Your task to perform on an android device: Search for Mexican restaurants on Maps Image 0: 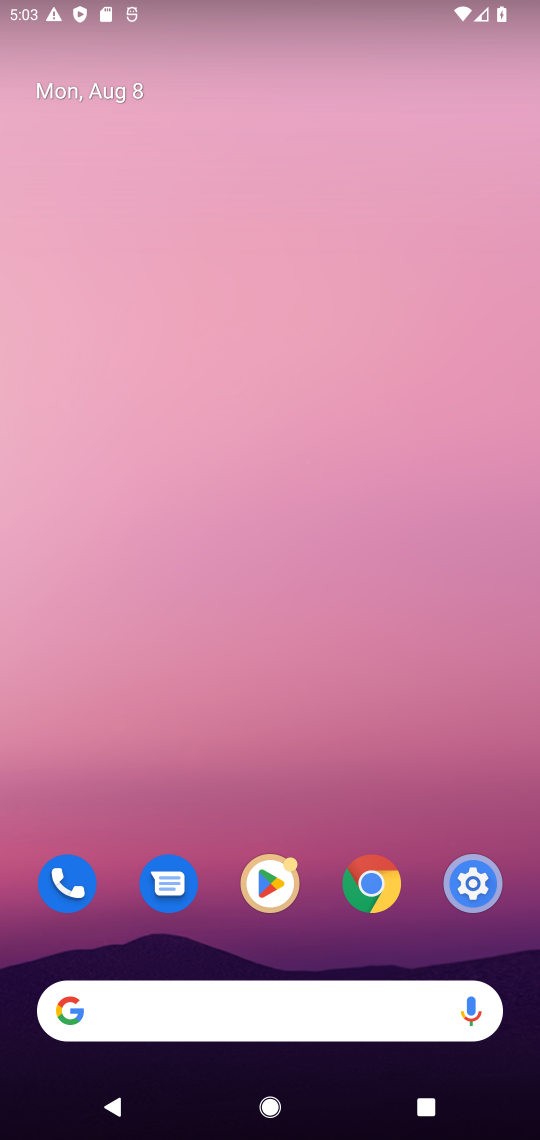
Step 0: drag from (304, 380) to (163, 312)
Your task to perform on an android device: Search for Mexican restaurants on Maps Image 1: 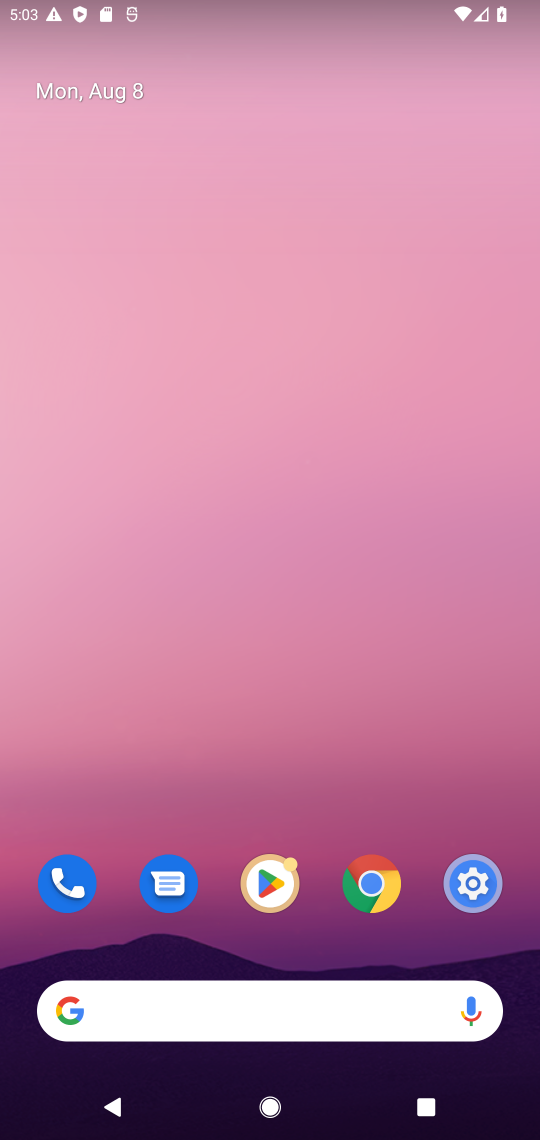
Step 1: drag from (244, 232) to (200, 178)
Your task to perform on an android device: Search for Mexican restaurants on Maps Image 2: 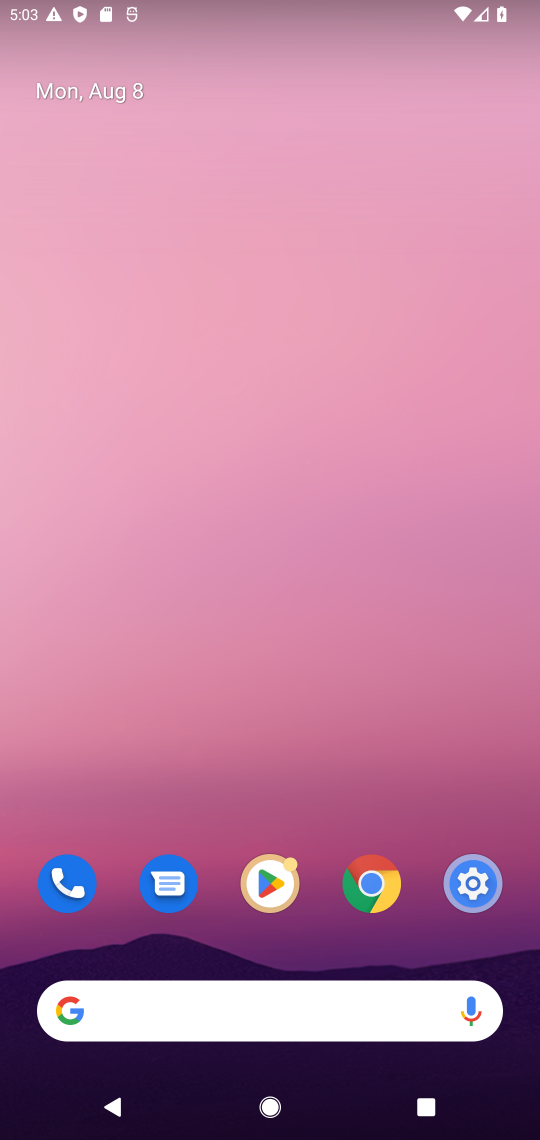
Step 2: drag from (173, 104) to (312, 226)
Your task to perform on an android device: Search for Mexican restaurants on Maps Image 3: 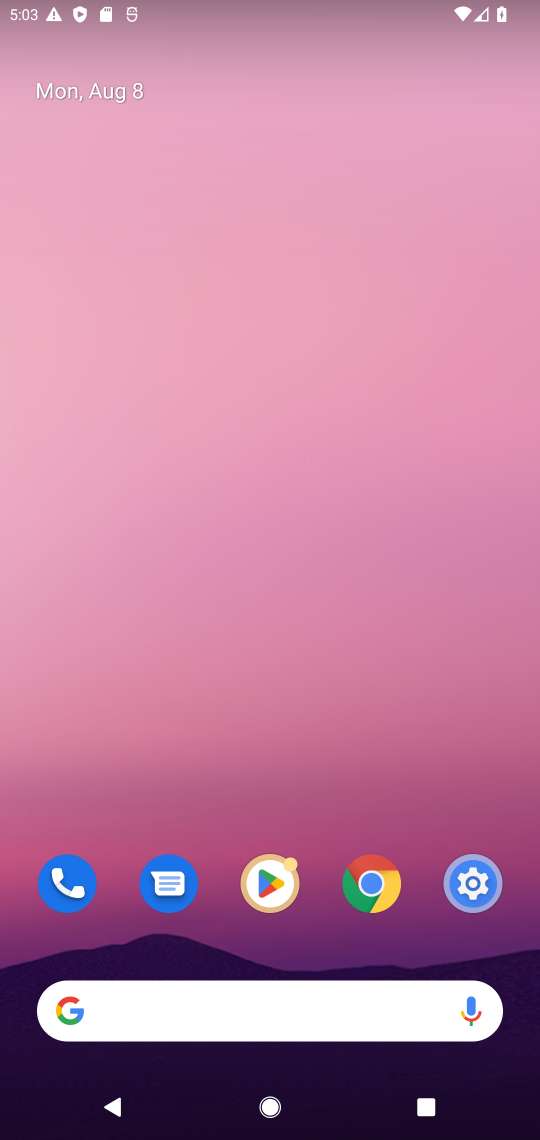
Step 3: click (258, 283)
Your task to perform on an android device: Search for Mexican restaurants on Maps Image 4: 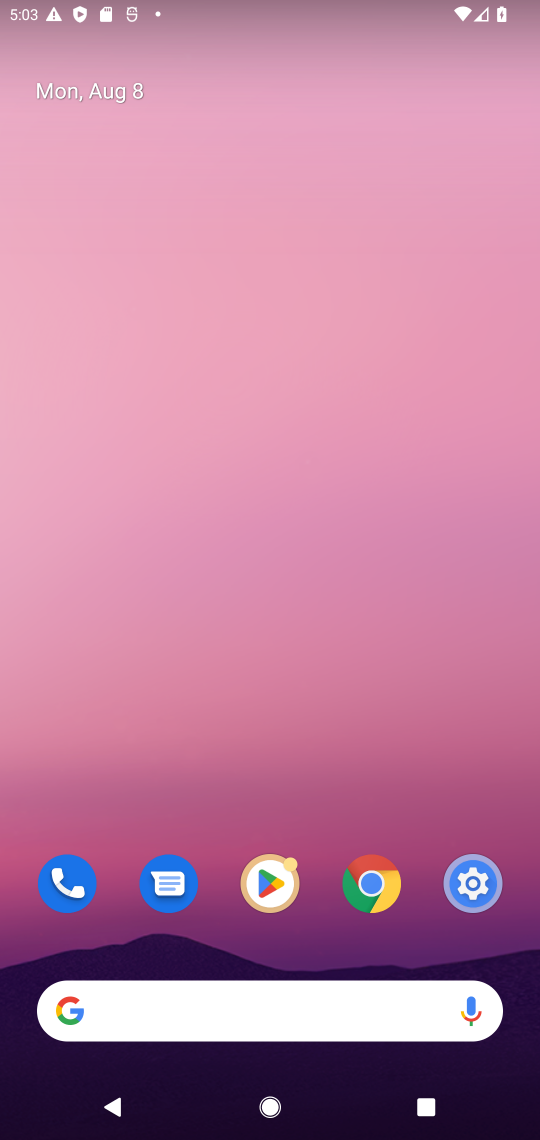
Step 4: drag from (301, 808) to (264, 235)
Your task to perform on an android device: Search for Mexican restaurants on Maps Image 5: 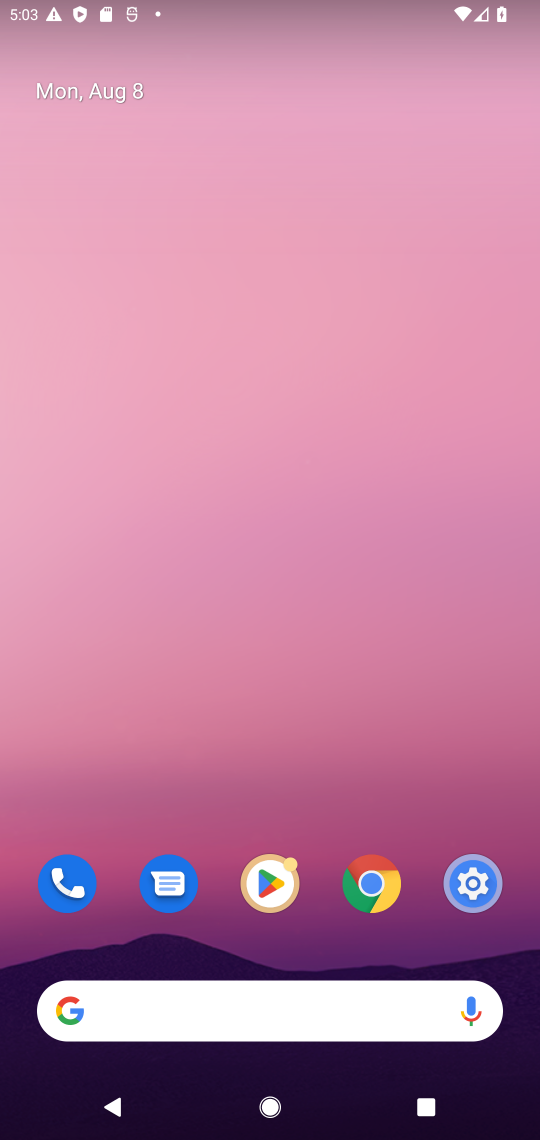
Step 5: drag from (303, 885) to (303, 196)
Your task to perform on an android device: Search for Mexican restaurants on Maps Image 6: 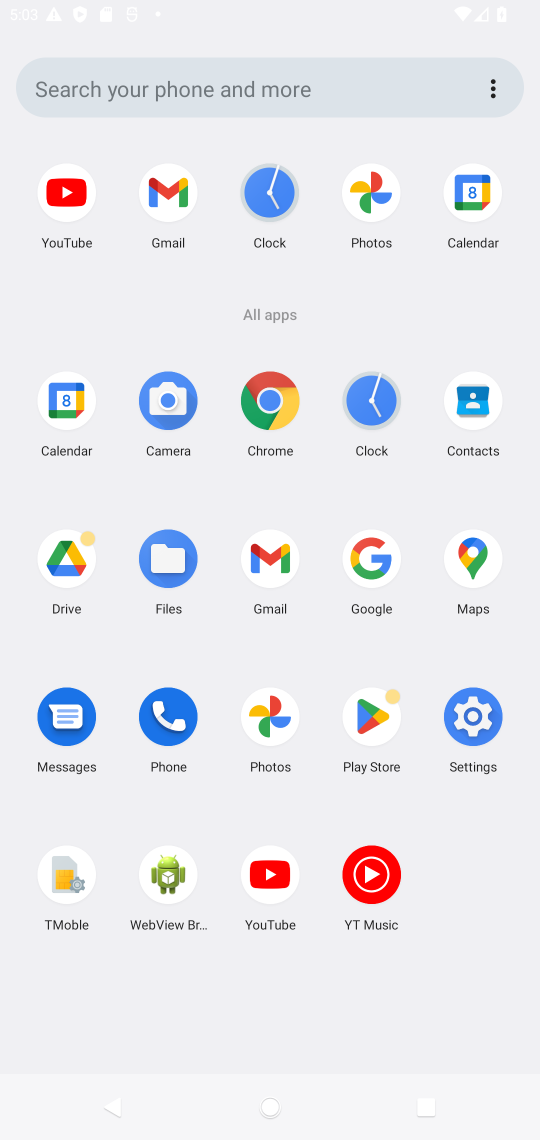
Step 6: drag from (321, 784) to (276, 281)
Your task to perform on an android device: Search for Mexican restaurants on Maps Image 7: 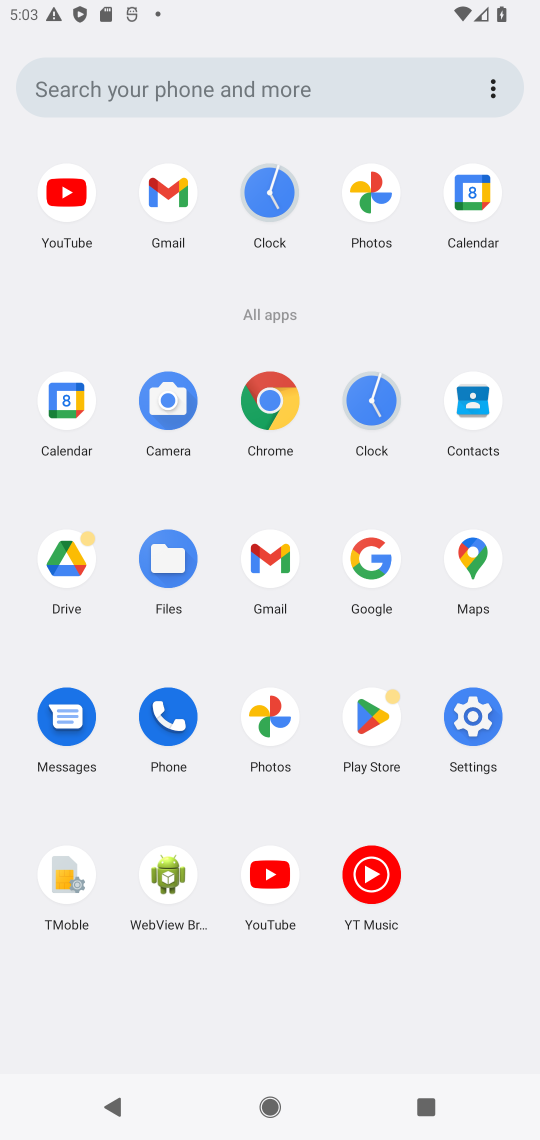
Step 7: click (456, 561)
Your task to perform on an android device: Search for Mexican restaurants on Maps Image 8: 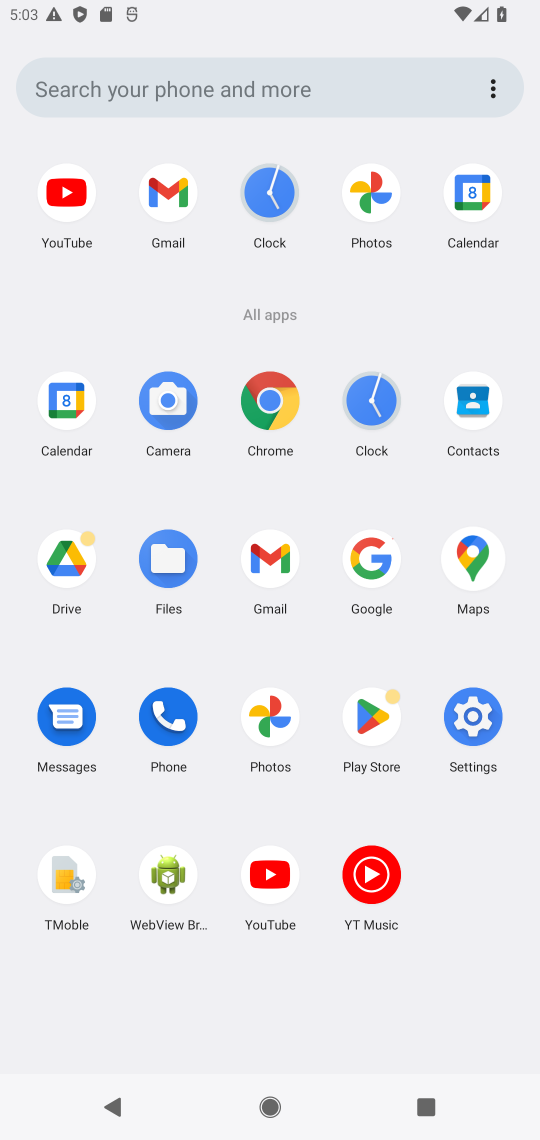
Step 8: click (465, 561)
Your task to perform on an android device: Search for Mexican restaurants on Maps Image 9: 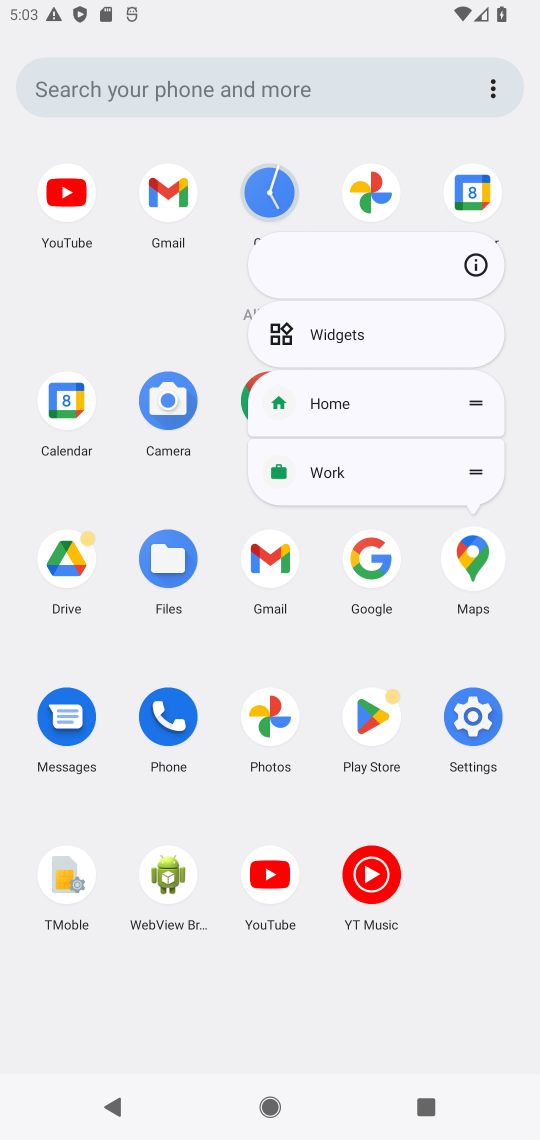
Step 9: click (476, 563)
Your task to perform on an android device: Search for Mexican restaurants on Maps Image 10: 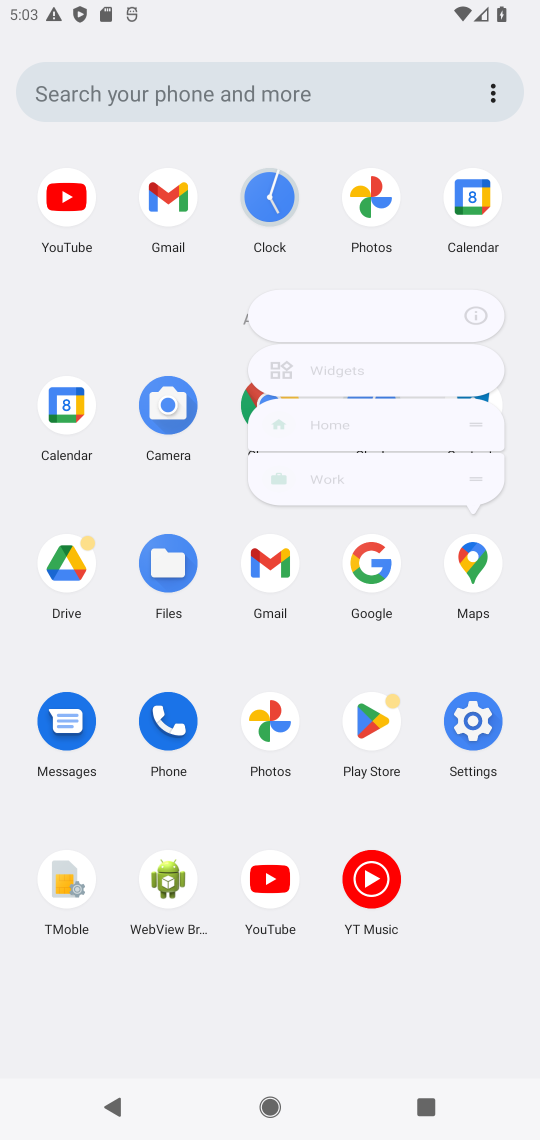
Step 10: click (453, 542)
Your task to perform on an android device: Search for Mexican restaurants on Maps Image 11: 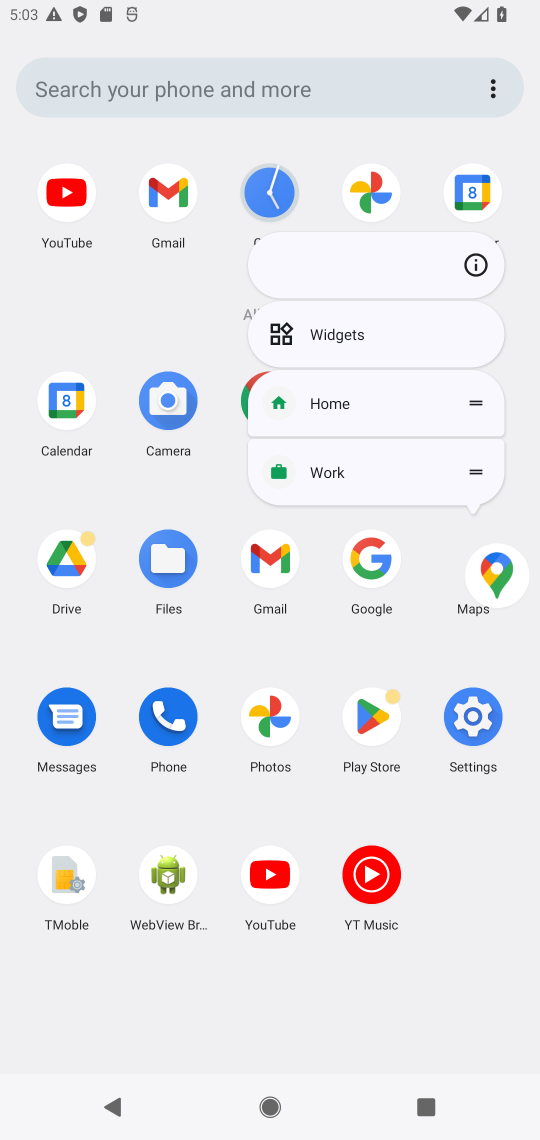
Step 11: click (477, 559)
Your task to perform on an android device: Search for Mexican restaurants on Maps Image 12: 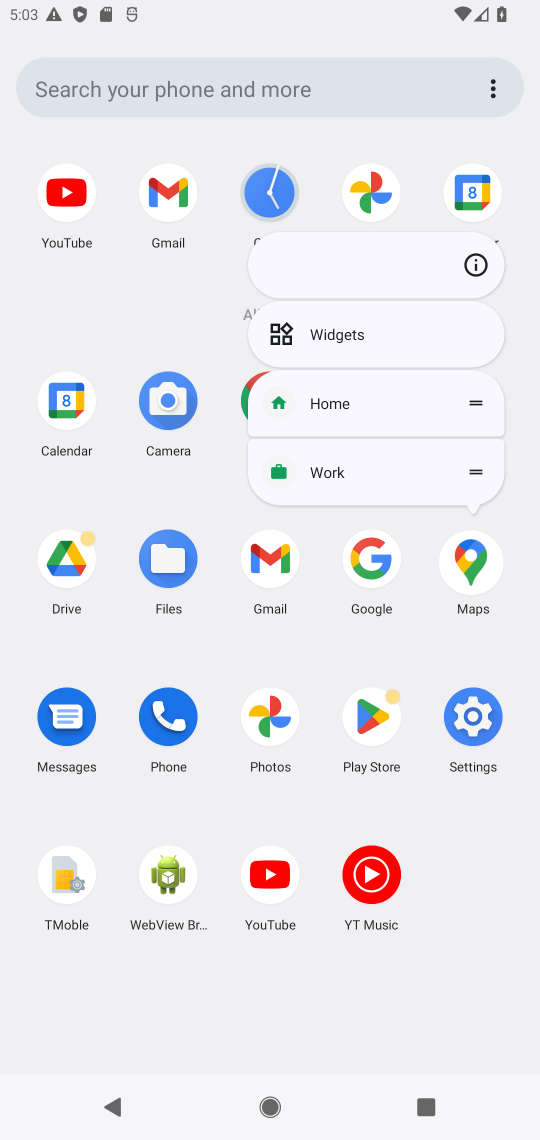
Step 12: click (475, 560)
Your task to perform on an android device: Search for Mexican restaurants on Maps Image 13: 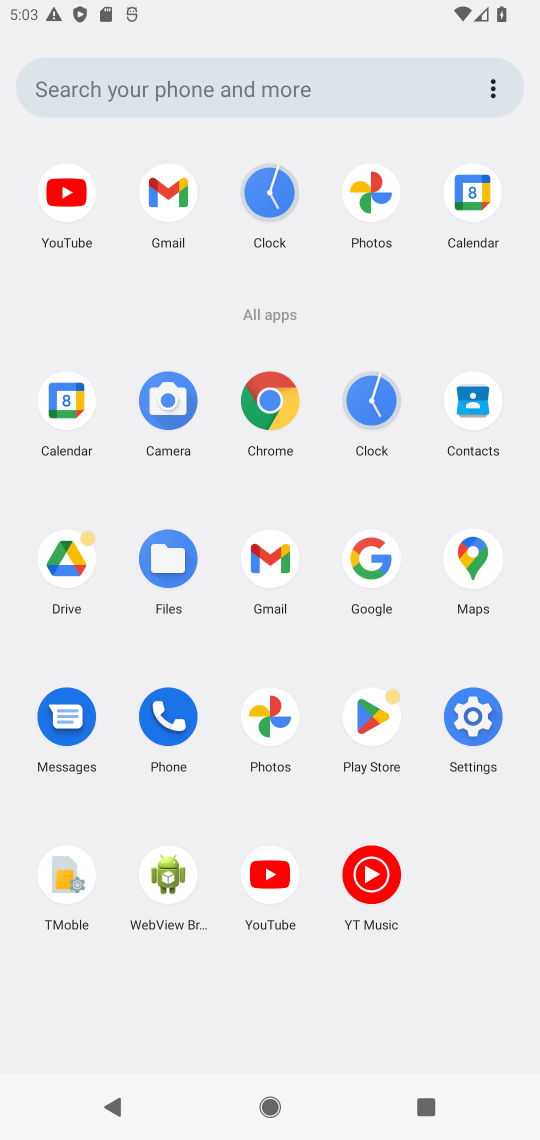
Step 13: click (475, 560)
Your task to perform on an android device: Search for Mexican restaurants on Maps Image 14: 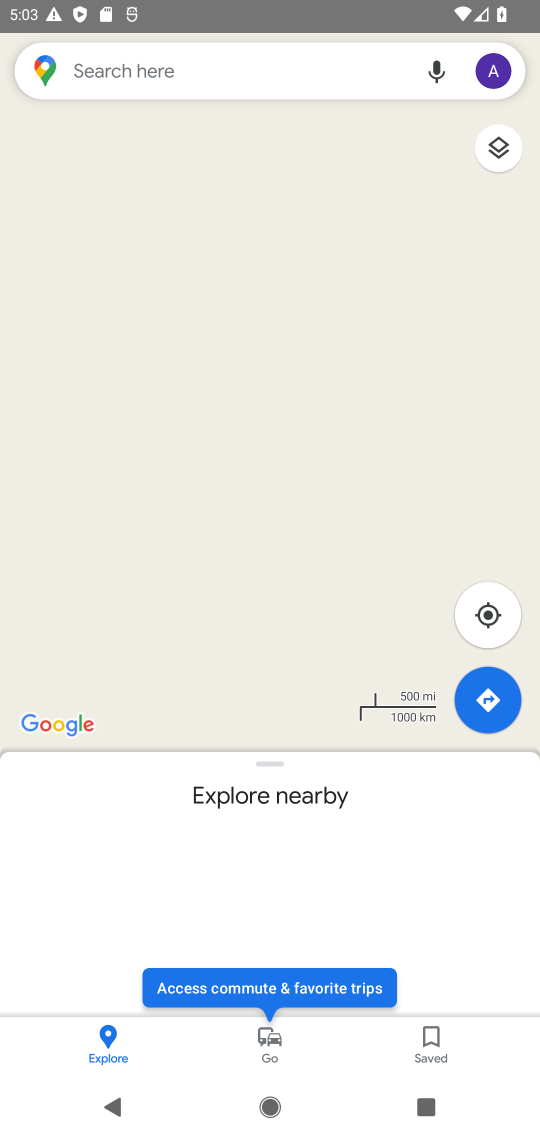
Step 14: click (89, 61)
Your task to perform on an android device: Search for Mexican restaurants on Maps Image 15: 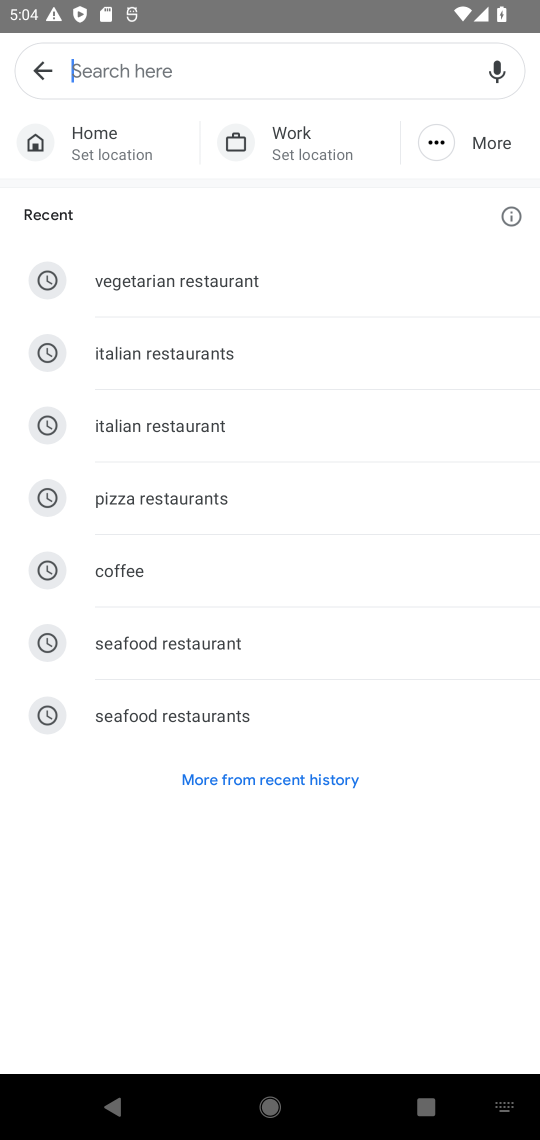
Step 15: type "mexican restaurants"
Your task to perform on an android device: Search for Mexican restaurants on Maps Image 16: 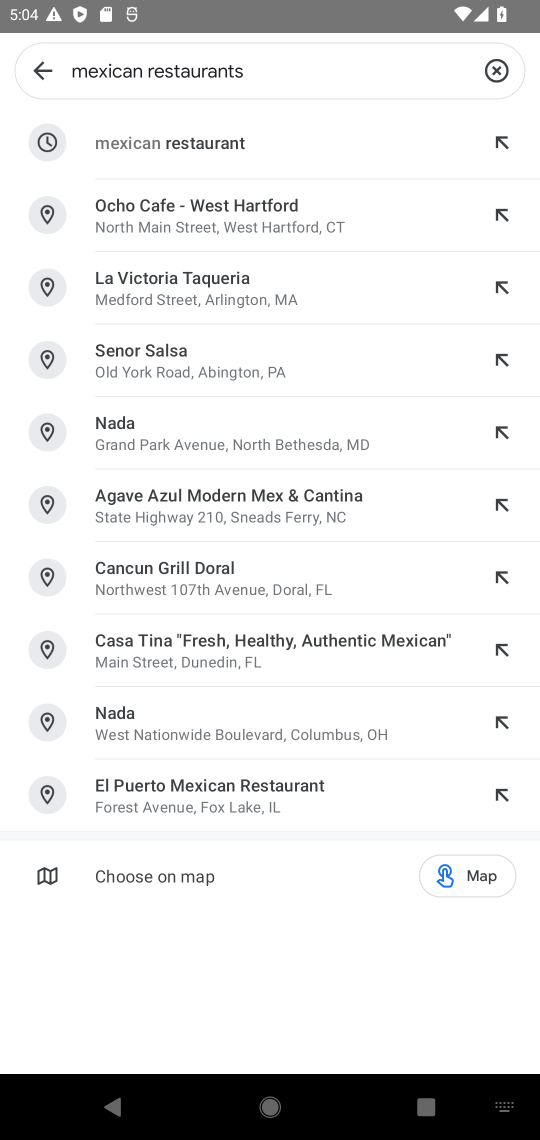
Step 16: click (213, 137)
Your task to perform on an android device: Search for Mexican restaurants on Maps Image 17: 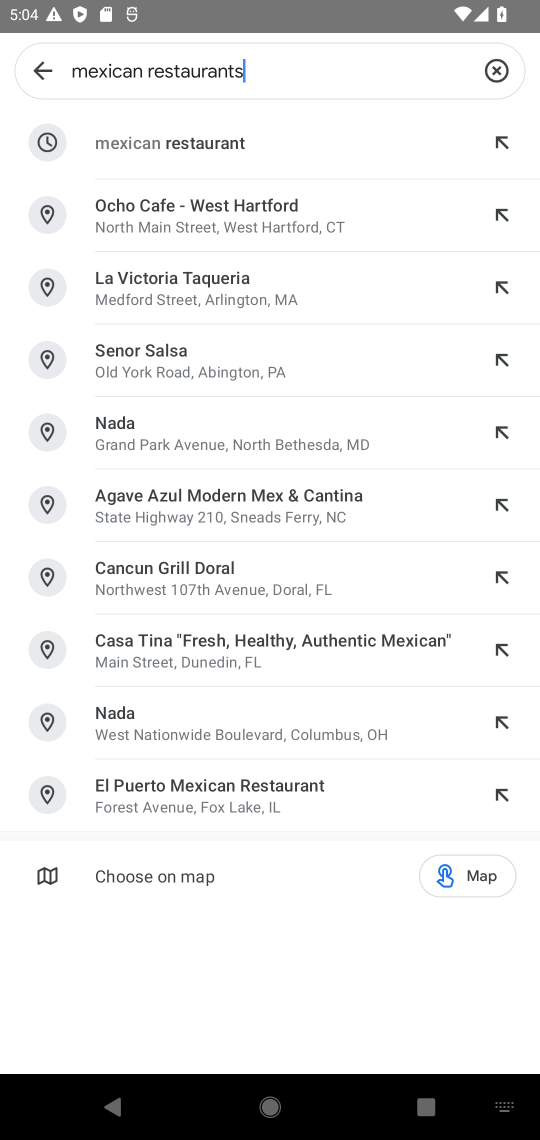
Step 17: click (208, 140)
Your task to perform on an android device: Search for Mexican restaurants on Maps Image 18: 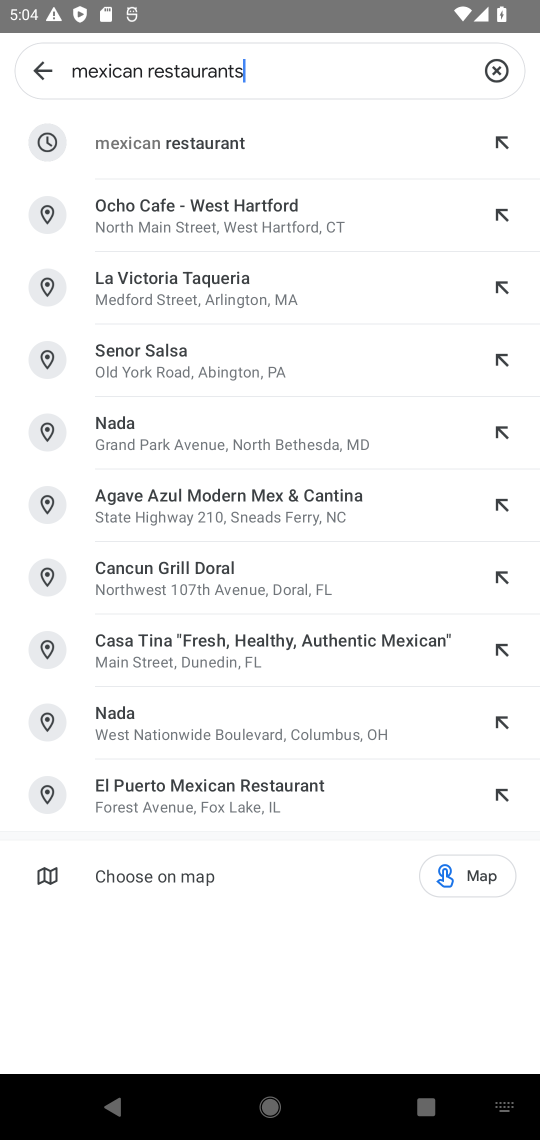
Step 18: click (208, 140)
Your task to perform on an android device: Search for Mexican restaurants on Maps Image 19: 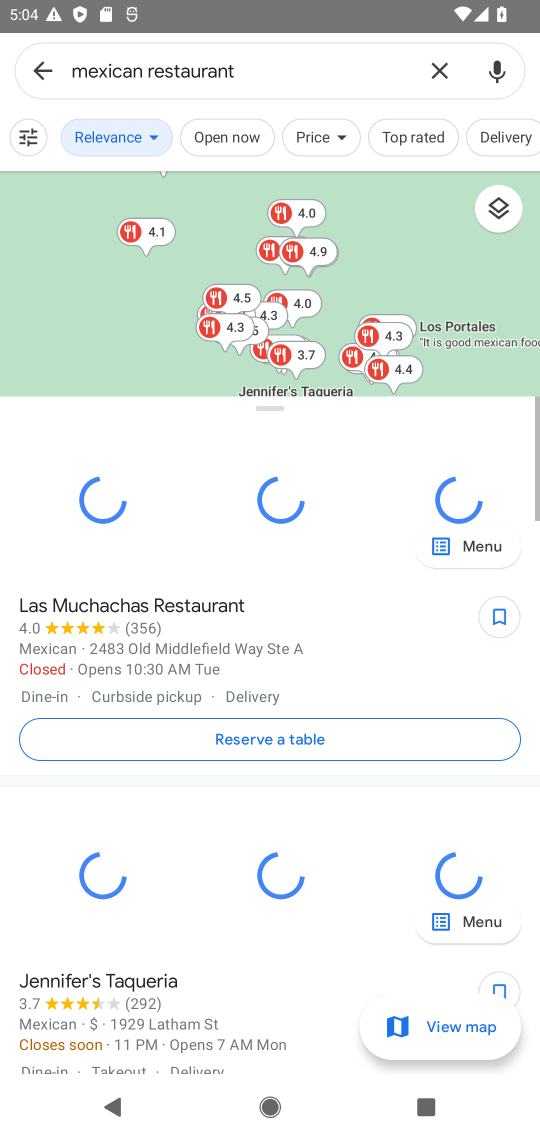
Step 19: task complete